Your task to perform on an android device: Search for seafood restaurants on Google Maps Image 0: 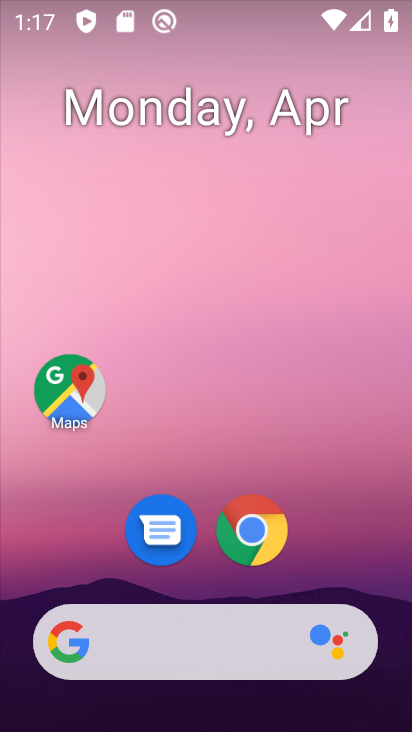
Step 0: click (66, 400)
Your task to perform on an android device: Search for seafood restaurants on Google Maps Image 1: 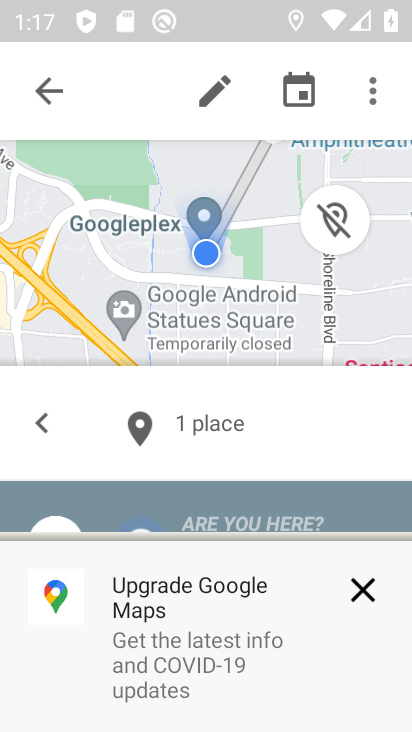
Step 1: click (51, 77)
Your task to perform on an android device: Search for seafood restaurants on Google Maps Image 2: 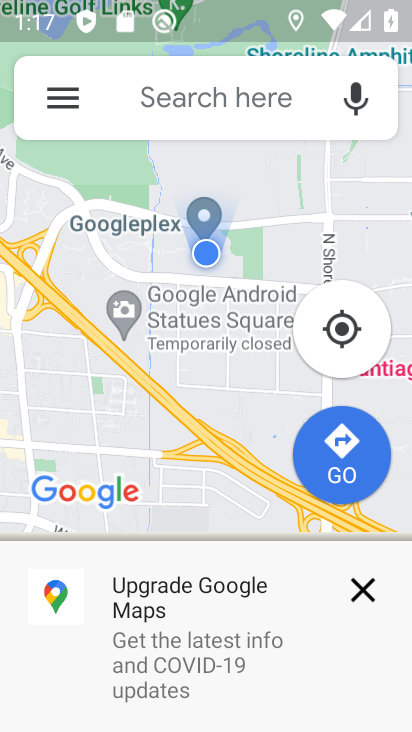
Step 2: click (131, 100)
Your task to perform on an android device: Search for seafood restaurants on Google Maps Image 3: 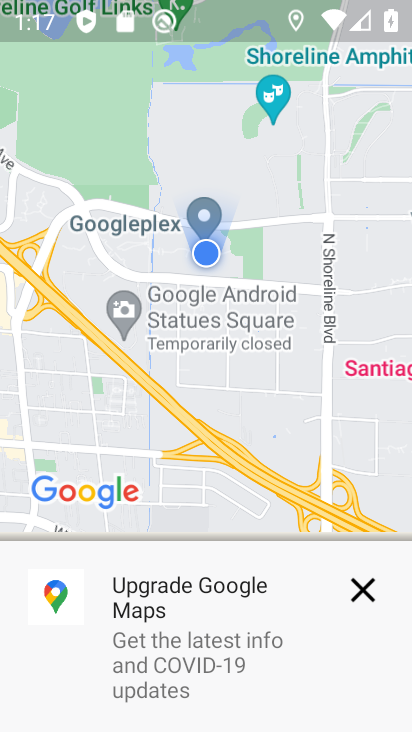
Step 3: click (213, 165)
Your task to perform on an android device: Search for seafood restaurants on Google Maps Image 4: 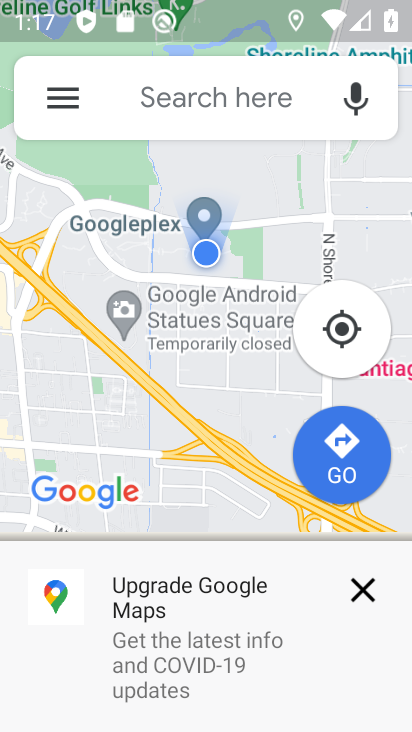
Step 4: click (145, 77)
Your task to perform on an android device: Search for seafood restaurants on Google Maps Image 5: 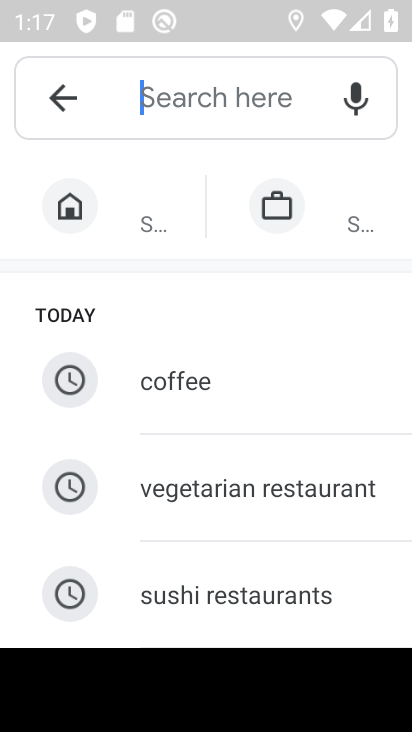
Step 5: type "seafood restaurants"
Your task to perform on an android device: Search for seafood restaurants on Google Maps Image 6: 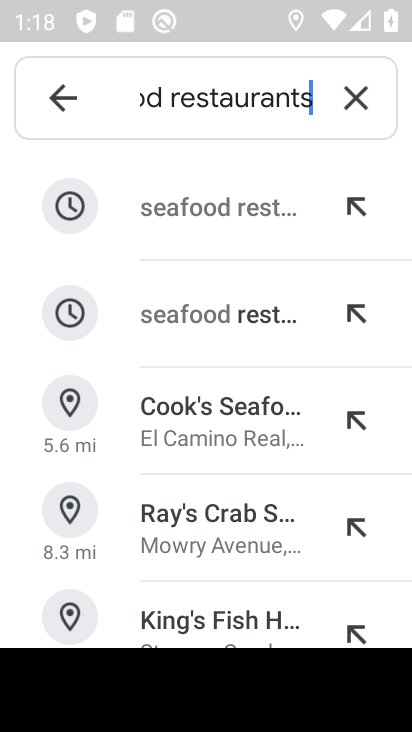
Step 6: click (177, 201)
Your task to perform on an android device: Search for seafood restaurants on Google Maps Image 7: 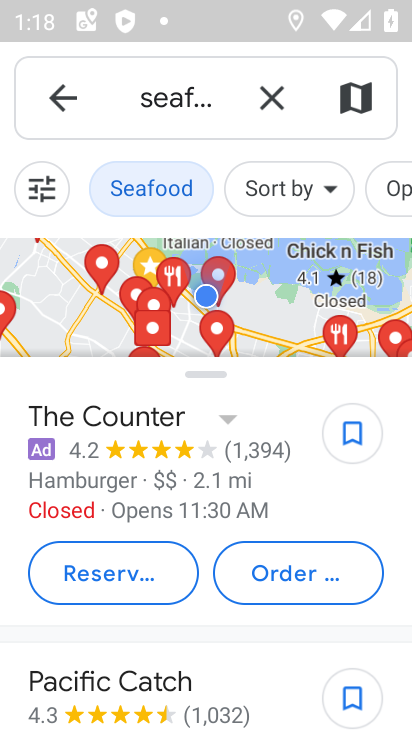
Step 7: task complete